Your task to perform on an android device: turn notification dots off Image 0: 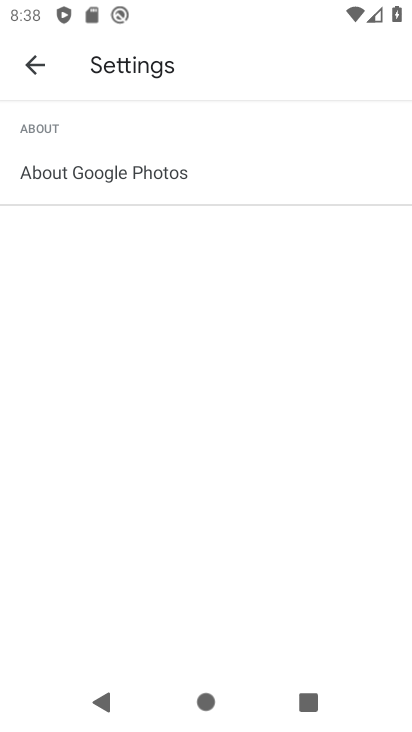
Step 0: press home button
Your task to perform on an android device: turn notification dots off Image 1: 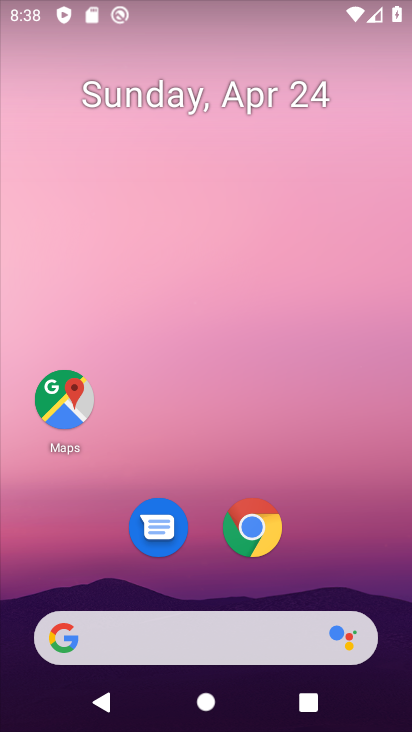
Step 1: drag from (360, 554) to (314, 0)
Your task to perform on an android device: turn notification dots off Image 2: 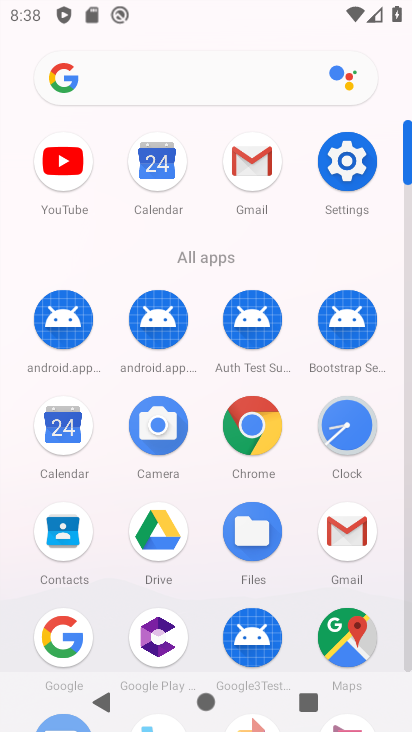
Step 2: click (349, 166)
Your task to perform on an android device: turn notification dots off Image 3: 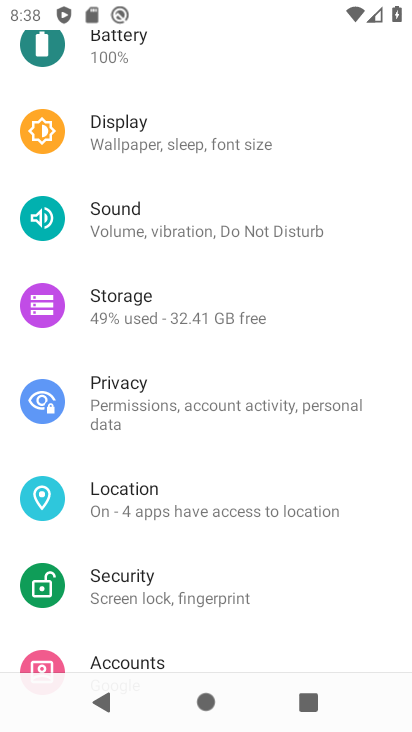
Step 3: drag from (335, 330) to (326, 570)
Your task to perform on an android device: turn notification dots off Image 4: 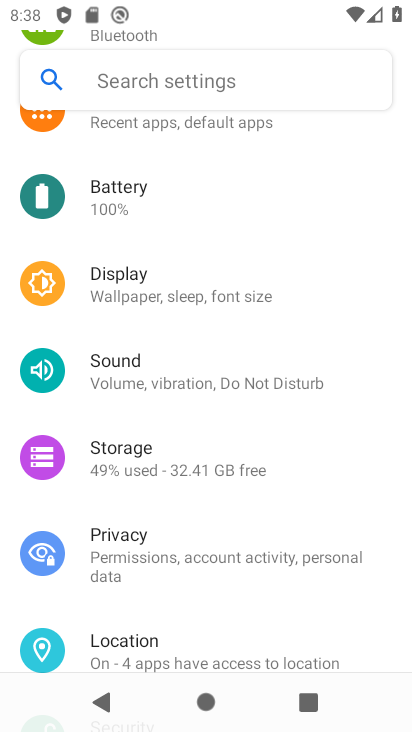
Step 4: drag from (319, 241) to (315, 508)
Your task to perform on an android device: turn notification dots off Image 5: 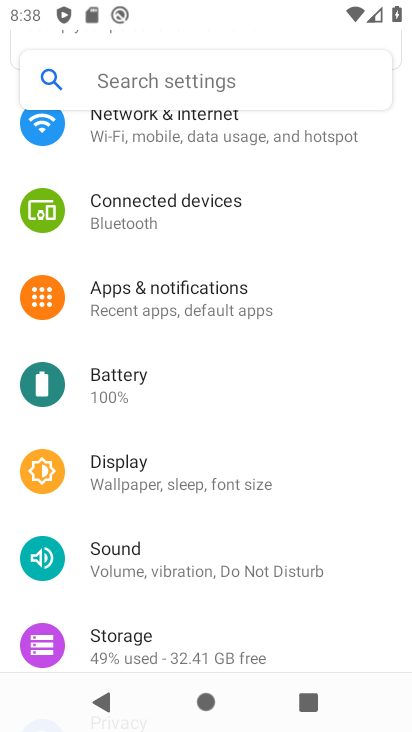
Step 5: click (141, 297)
Your task to perform on an android device: turn notification dots off Image 6: 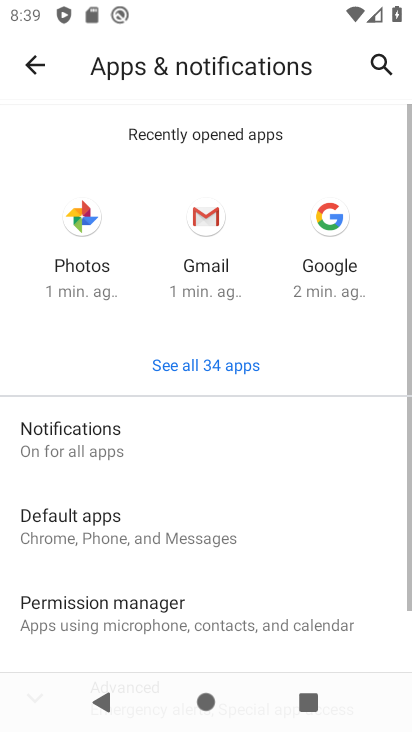
Step 6: click (71, 435)
Your task to perform on an android device: turn notification dots off Image 7: 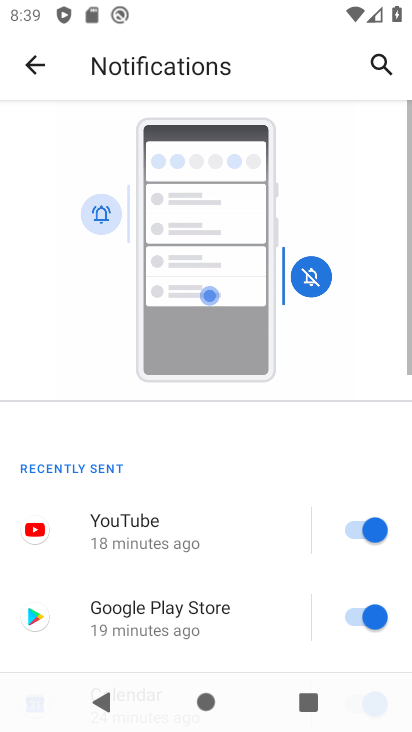
Step 7: drag from (197, 560) to (197, 71)
Your task to perform on an android device: turn notification dots off Image 8: 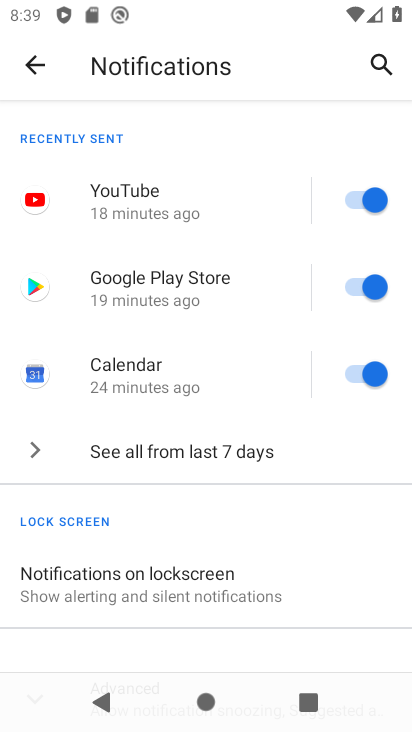
Step 8: drag from (167, 501) to (177, 132)
Your task to perform on an android device: turn notification dots off Image 9: 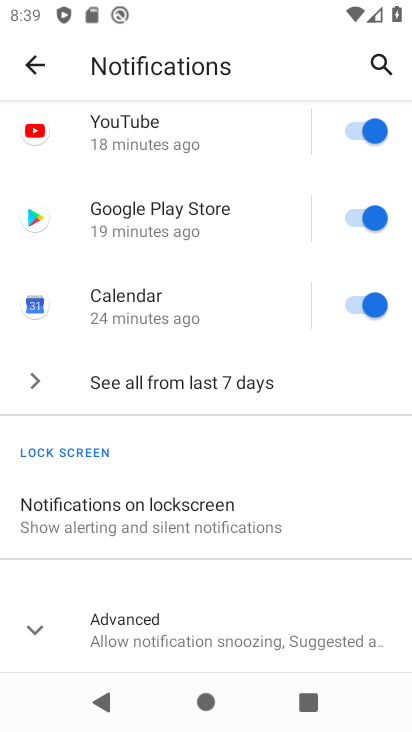
Step 9: click (33, 635)
Your task to perform on an android device: turn notification dots off Image 10: 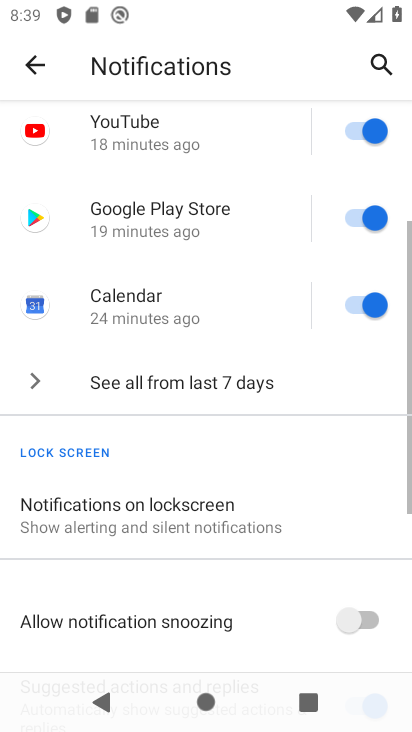
Step 10: drag from (181, 623) to (178, 97)
Your task to perform on an android device: turn notification dots off Image 11: 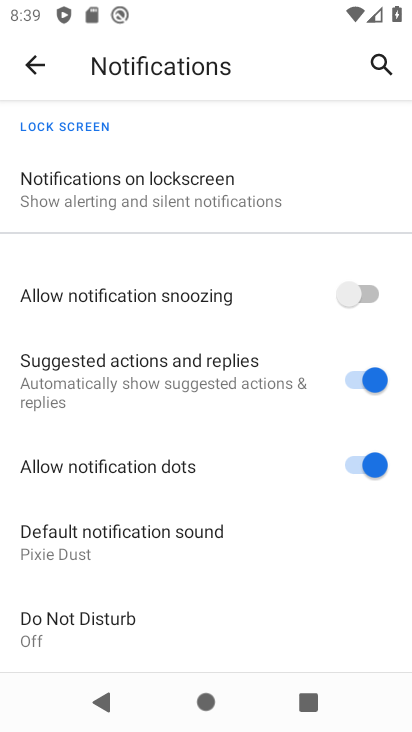
Step 11: click (356, 469)
Your task to perform on an android device: turn notification dots off Image 12: 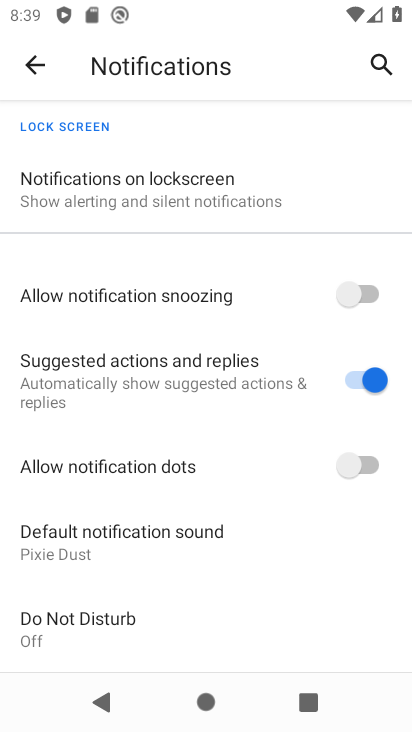
Step 12: task complete